Your task to perform on an android device: change notifications settings Image 0: 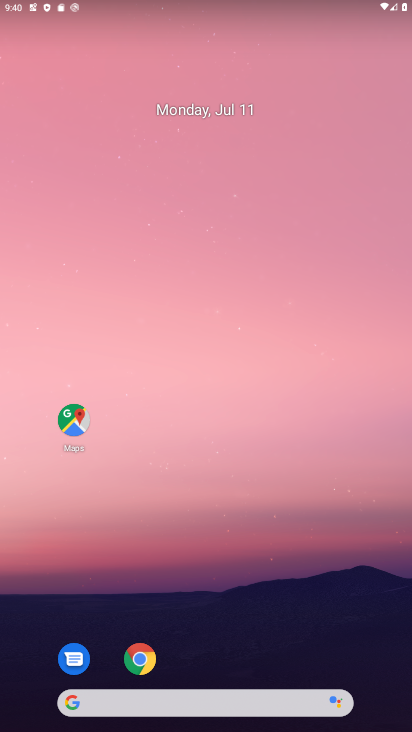
Step 0: drag from (408, 280) to (387, 200)
Your task to perform on an android device: change notifications settings Image 1: 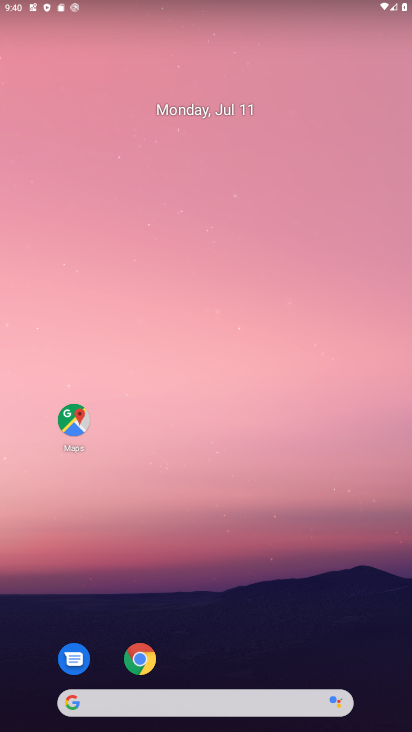
Step 1: drag from (236, 626) to (338, 7)
Your task to perform on an android device: change notifications settings Image 2: 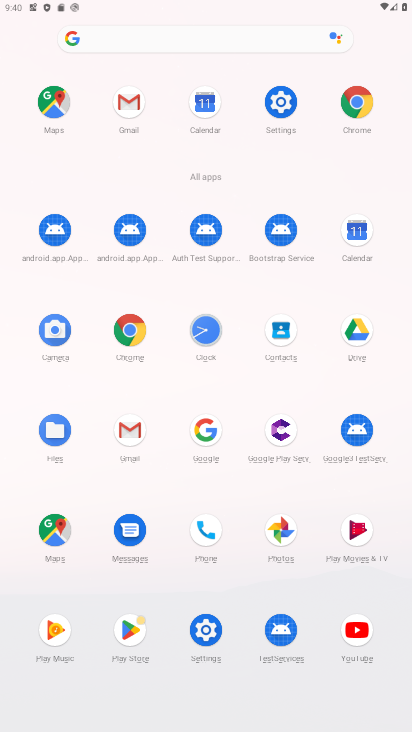
Step 2: click (293, 109)
Your task to perform on an android device: change notifications settings Image 3: 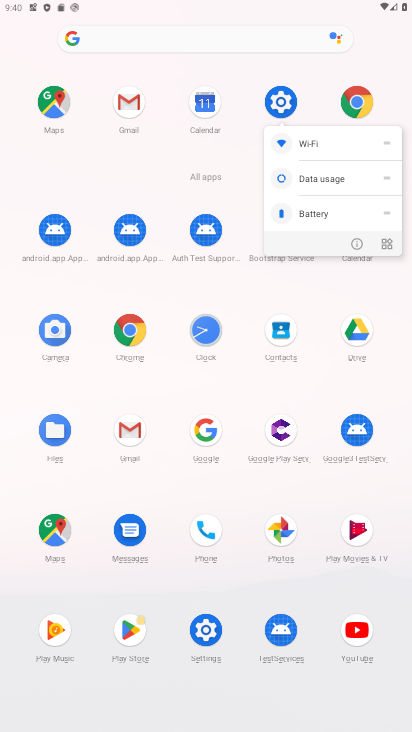
Step 3: click (286, 113)
Your task to perform on an android device: change notifications settings Image 4: 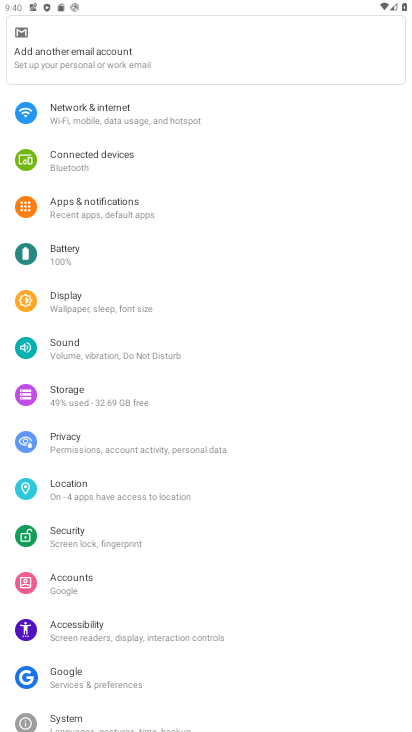
Step 4: click (92, 213)
Your task to perform on an android device: change notifications settings Image 5: 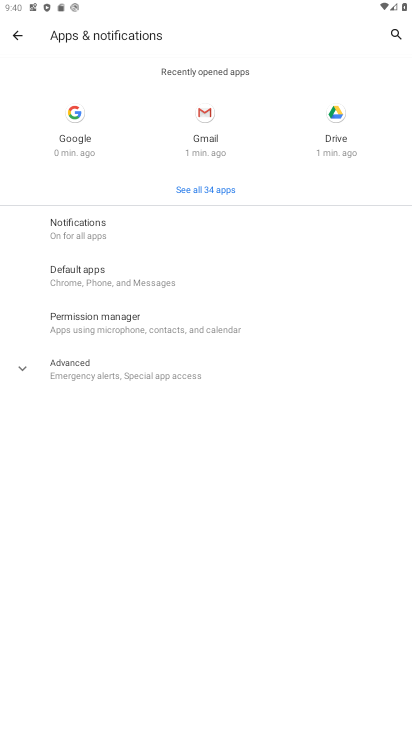
Step 5: click (92, 234)
Your task to perform on an android device: change notifications settings Image 6: 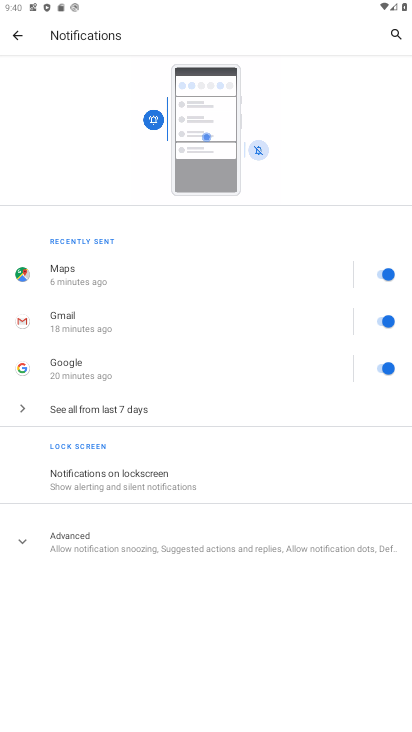
Step 6: click (146, 483)
Your task to perform on an android device: change notifications settings Image 7: 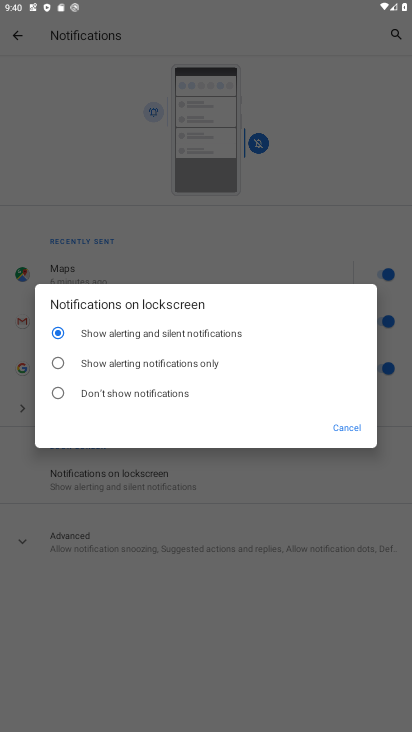
Step 7: click (339, 427)
Your task to perform on an android device: change notifications settings Image 8: 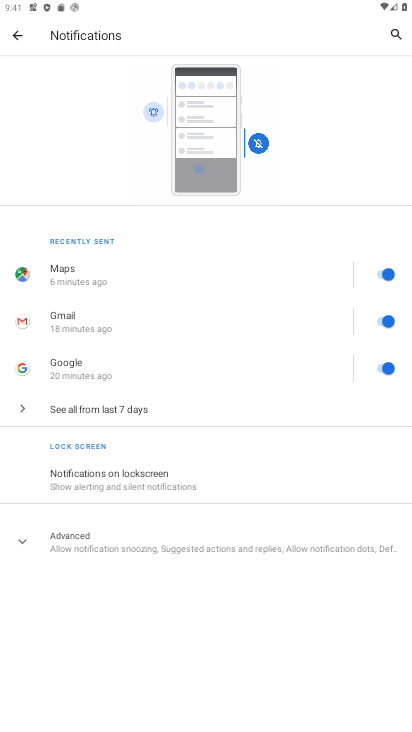
Step 8: click (129, 546)
Your task to perform on an android device: change notifications settings Image 9: 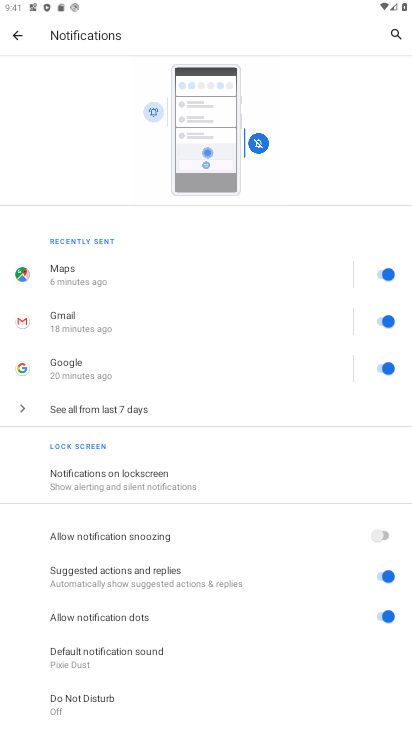
Step 9: drag from (119, 661) to (214, 330)
Your task to perform on an android device: change notifications settings Image 10: 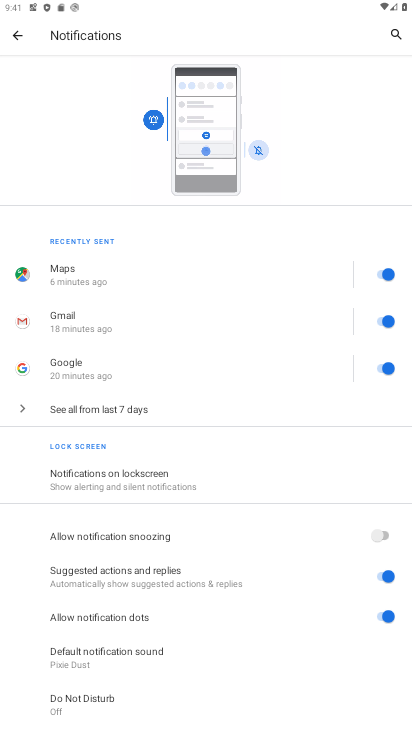
Step 10: click (375, 580)
Your task to perform on an android device: change notifications settings Image 11: 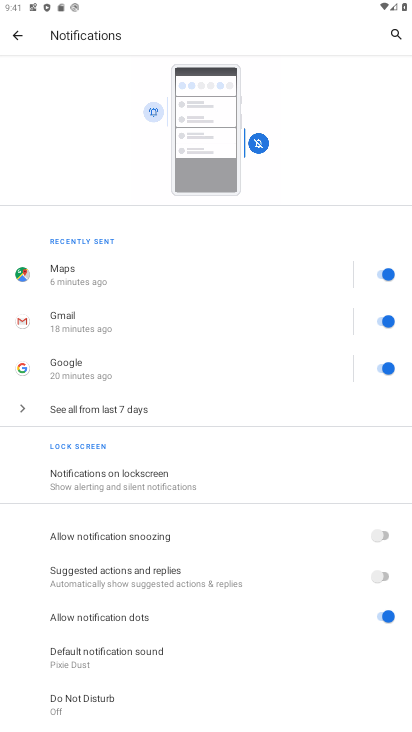
Step 11: task complete